Your task to perform on an android device: empty trash in google photos Image 0: 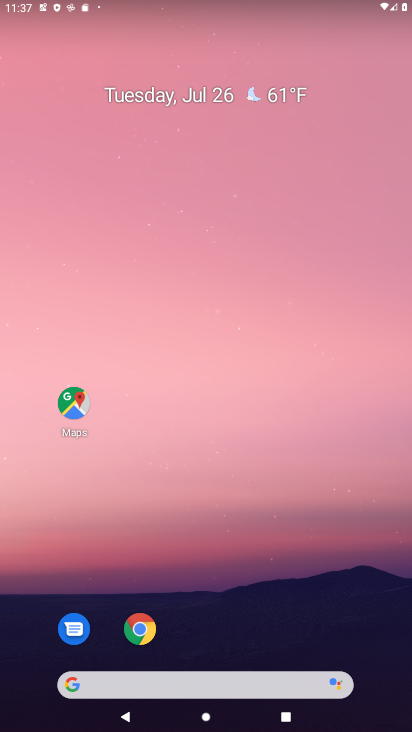
Step 0: drag from (244, 637) to (244, 507)
Your task to perform on an android device: empty trash in google photos Image 1: 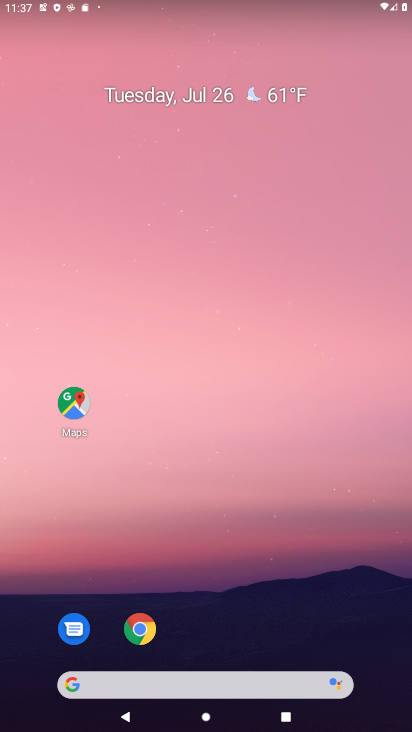
Step 1: drag from (258, 627) to (251, 25)
Your task to perform on an android device: empty trash in google photos Image 2: 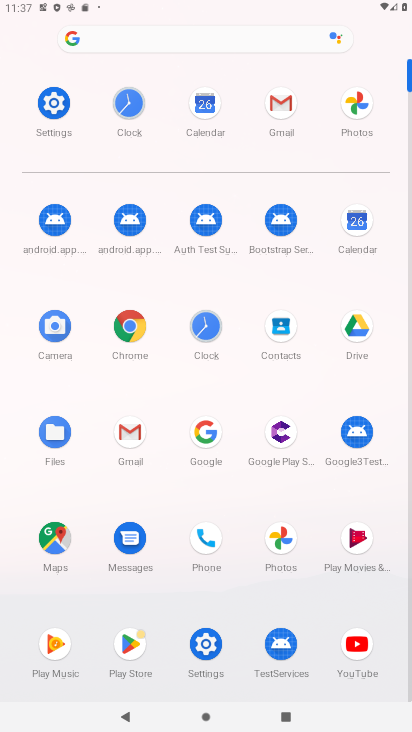
Step 2: click (358, 99)
Your task to perform on an android device: empty trash in google photos Image 3: 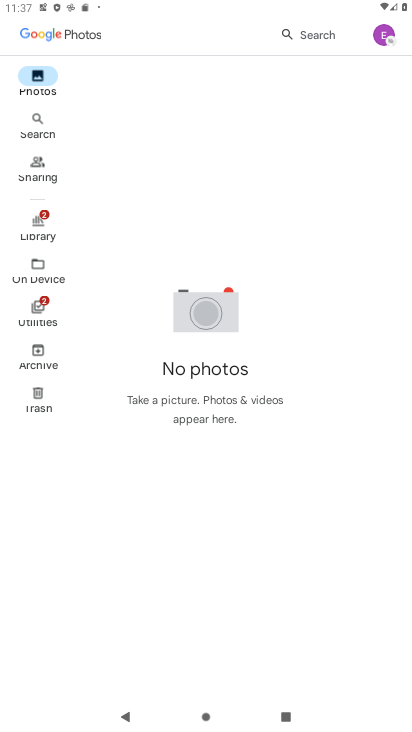
Step 3: click (38, 393)
Your task to perform on an android device: empty trash in google photos Image 4: 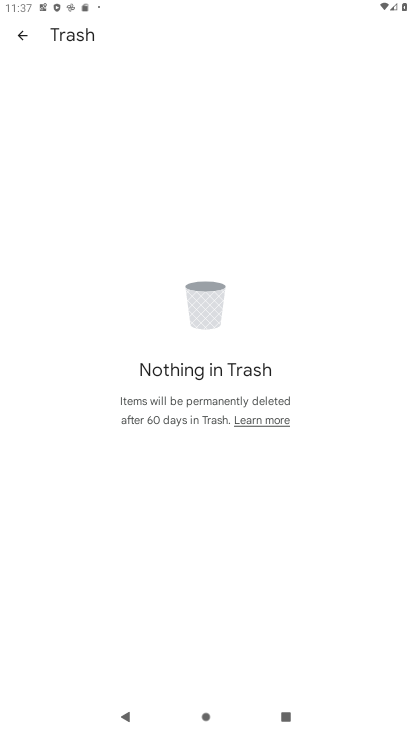
Step 4: task complete